Your task to perform on an android device: Go to calendar. Show me events next week Image 0: 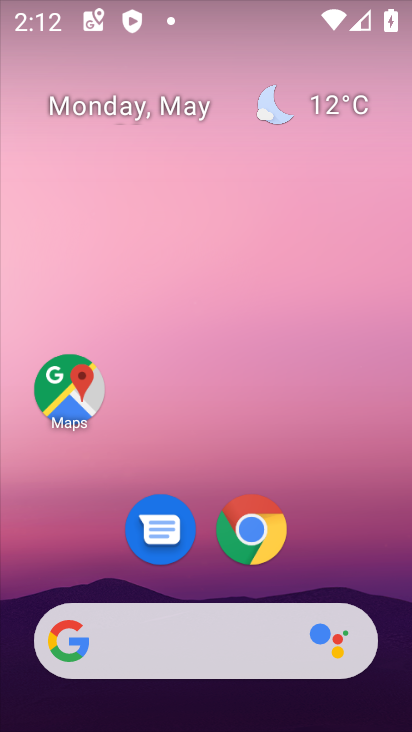
Step 0: drag from (389, 622) to (294, 48)
Your task to perform on an android device: Go to calendar. Show me events next week Image 1: 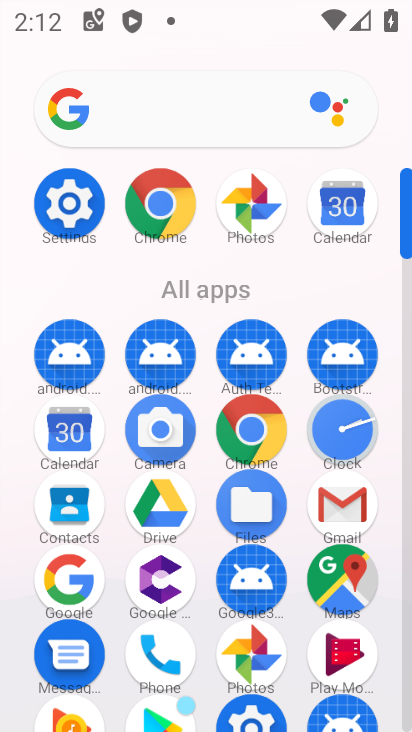
Step 1: click (408, 681)
Your task to perform on an android device: Go to calendar. Show me events next week Image 2: 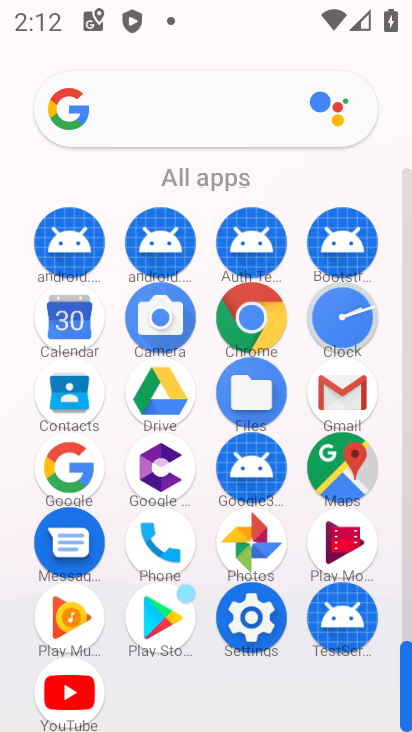
Step 2: click (62, 318)
Your task to perform on an android device: Go to calendar. Show me events next week Image 3: 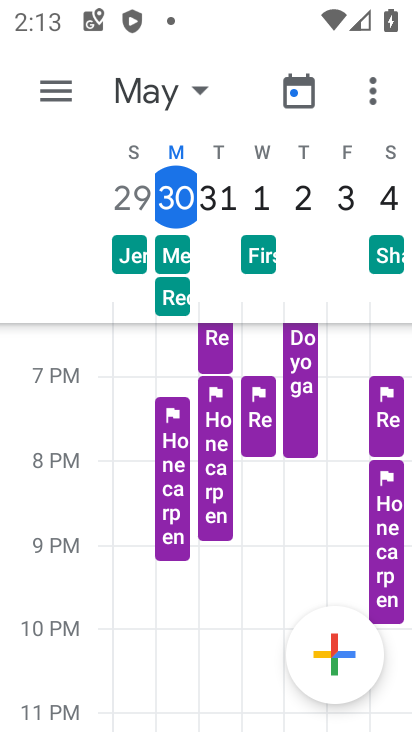
Step 3: click (200, 91)
Your task to perform on an android device: Go to calendar. Show me events next week Image 4: 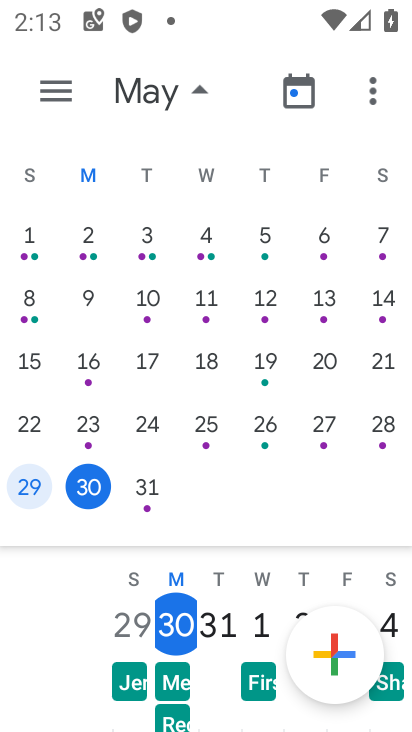
Step 4: drag from (293, 442) to (0, 320)
Your task to perform on an android device: Go to calendar. Show me events next week Image 5: 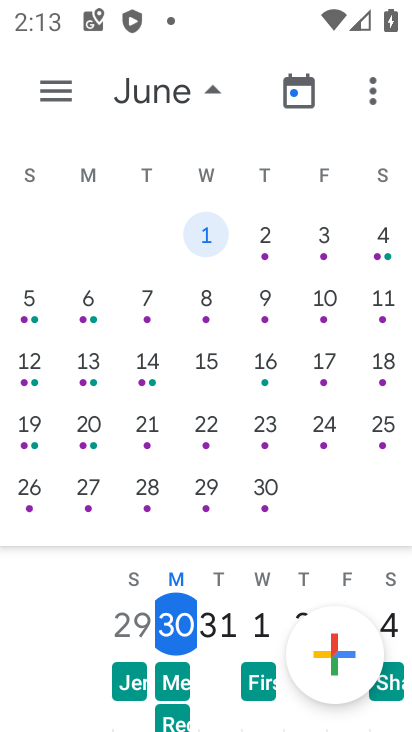
Step 5: click (21, 318)
Your task to perform on an android device: Go to calendar. Show me events next week Image 6: 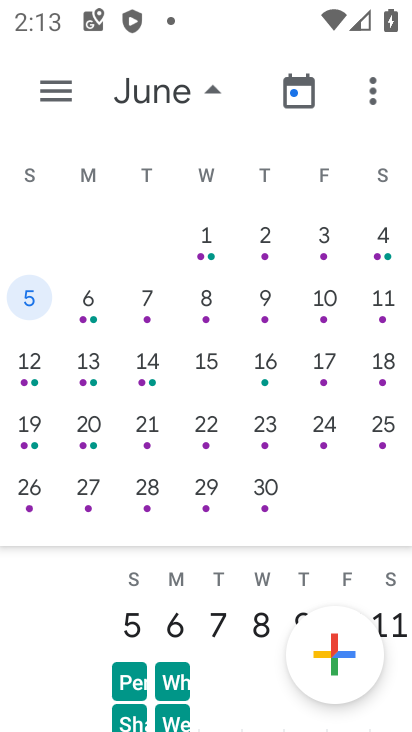
Step 6: task complete